Your task to perform on an android device: Empty the shopping cart on costco. Image 0: 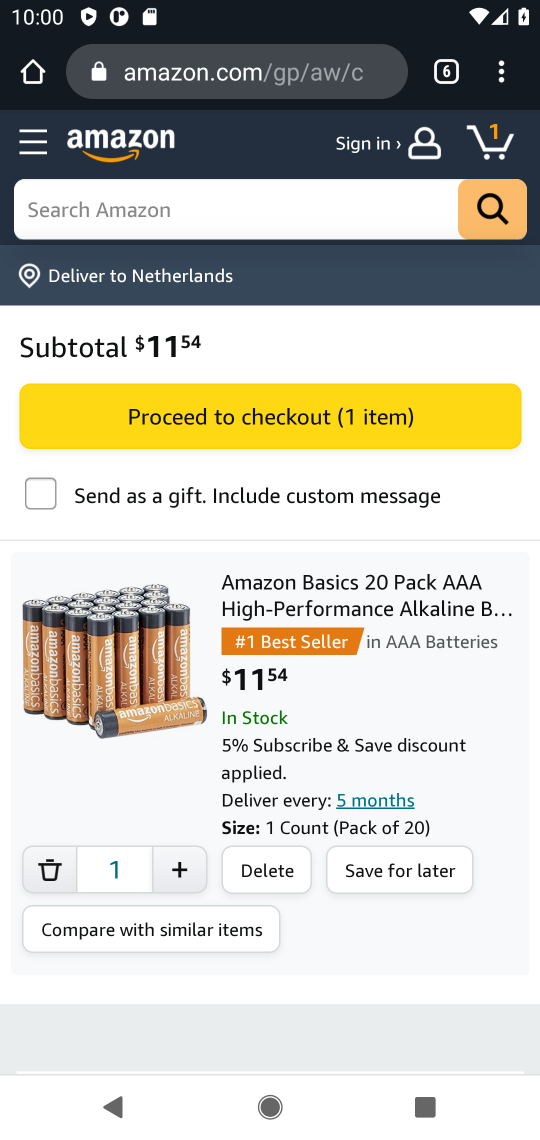
Step 0: press home button
Your task to perform on an android device: Empty the shopping cart on costco. Image 1: 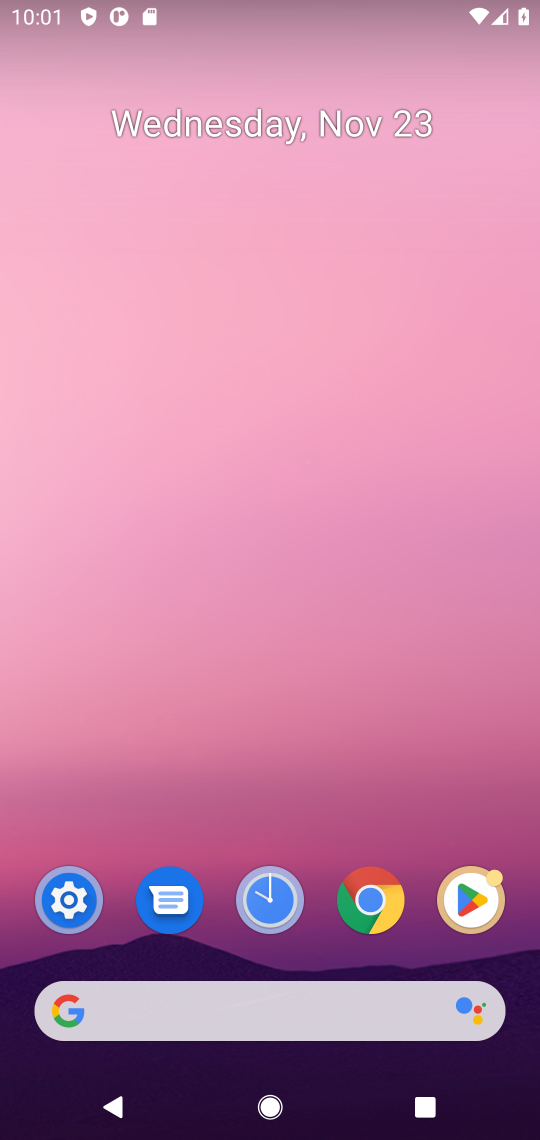
Step 1: click (263, 1033)
Your task to perform on an android device: Empty the shopping cart on costco. Image 2: 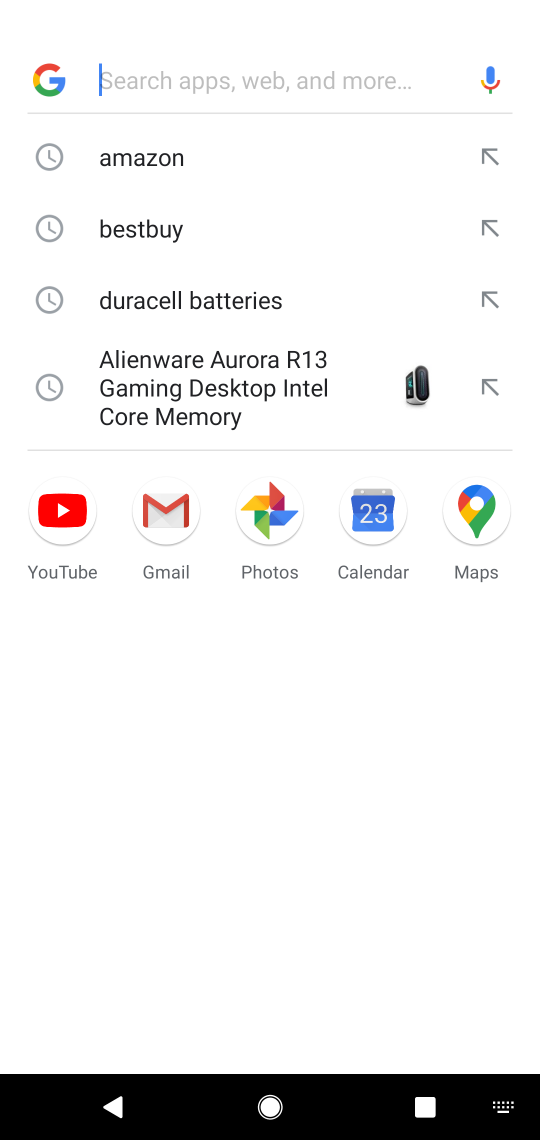
Step 2: type "costco"
Your task to perform on an android device: Empty the shopping cart on costco. Image 3: 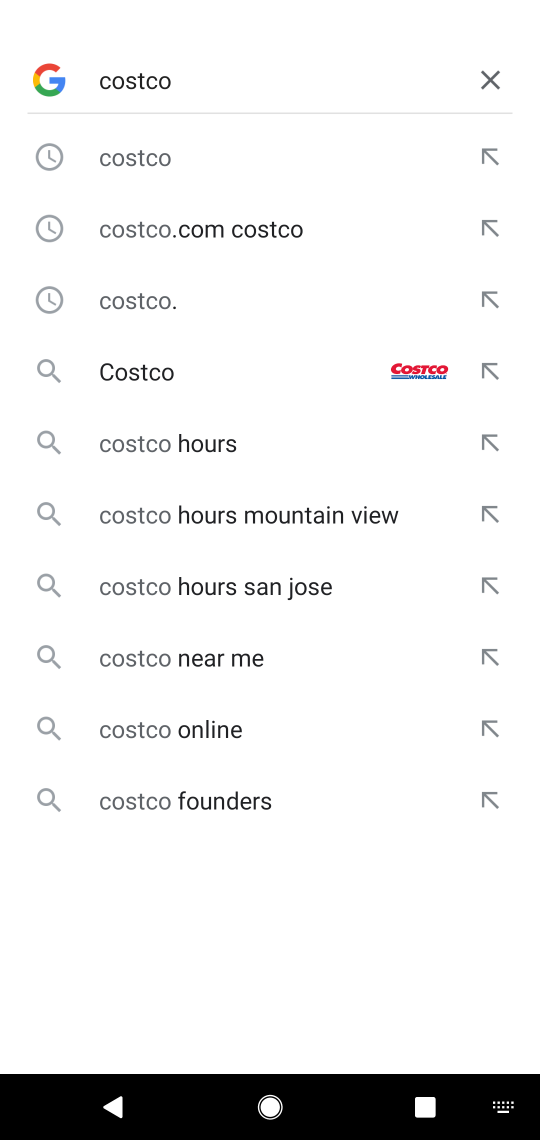
Step 3: click (214, 374)
Your task to perform on an android device: Empty the shopping cart on costco. Image 4: 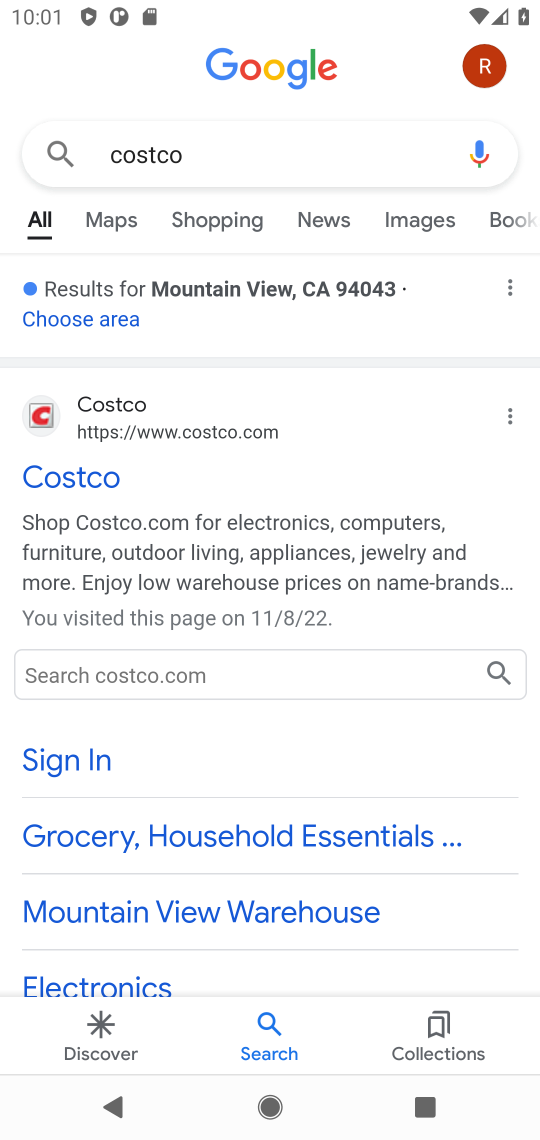
Step 4: click (75, 450)
Your task to perform on an android device: Empty the shopping cart on costco. Image 5: 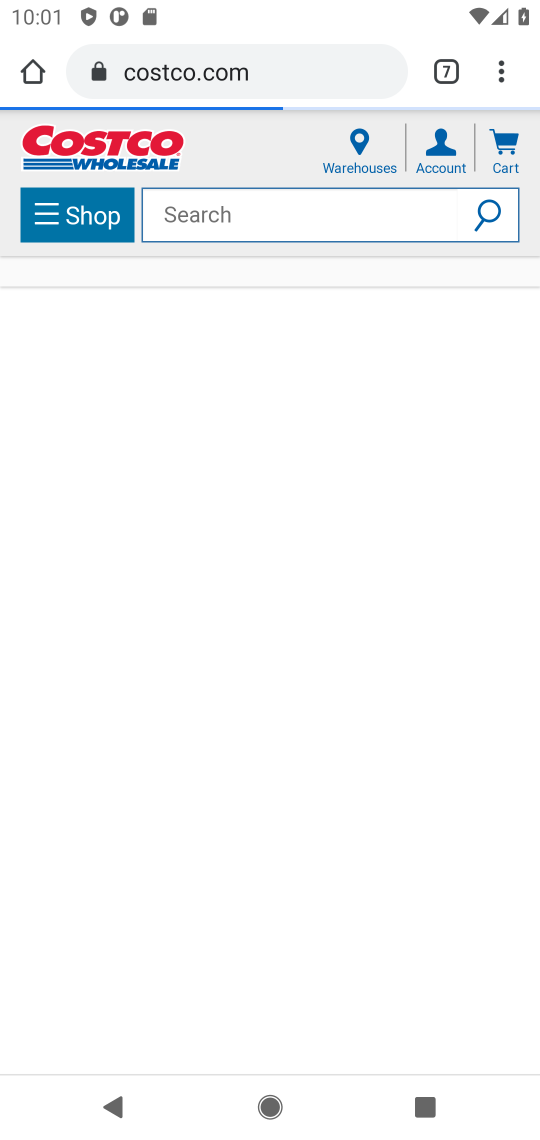
Step 5: click (215, 225)
Your task to perform on an android device: Empty the shopping cart on costco. Image 6: 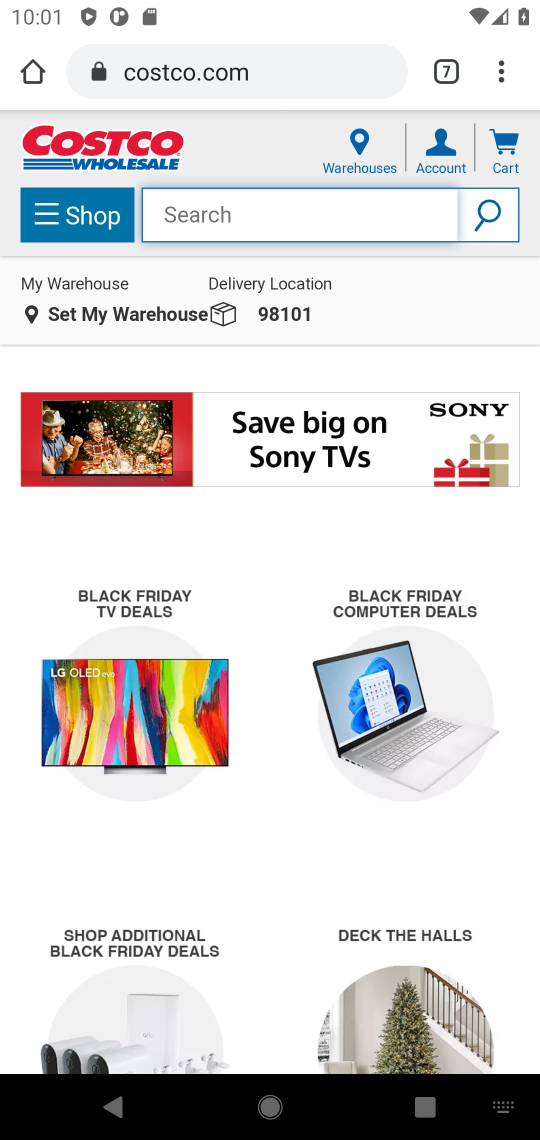
Step 6: click (514, 148)
Your task to perform on an android device: Empty the shopping cart on costco. Image 7: 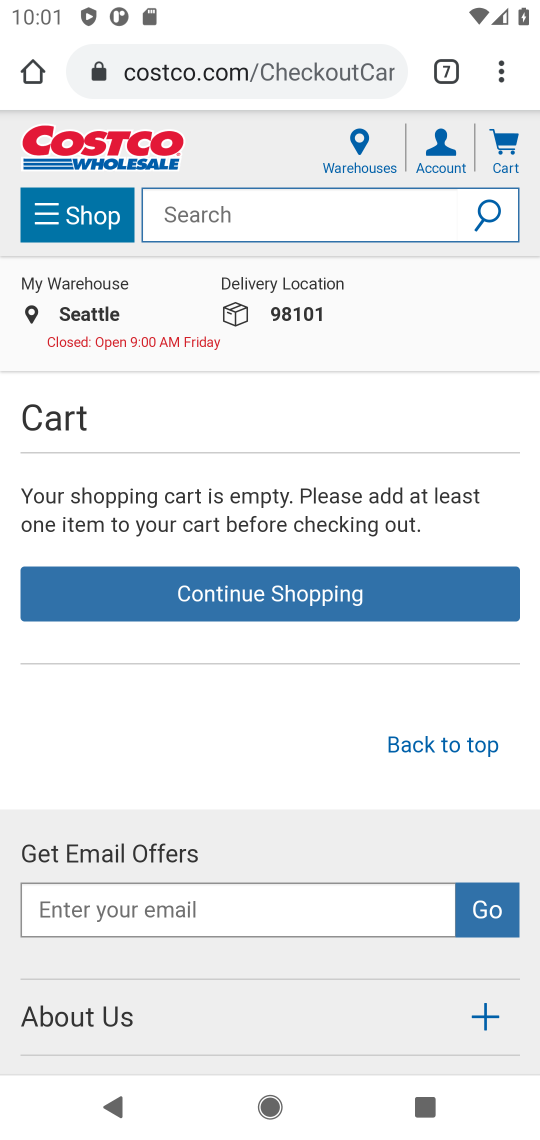
Step 7: task complete